Your task to perform on an android device: Open Google Chrome and open the bookmarks view Image 0: 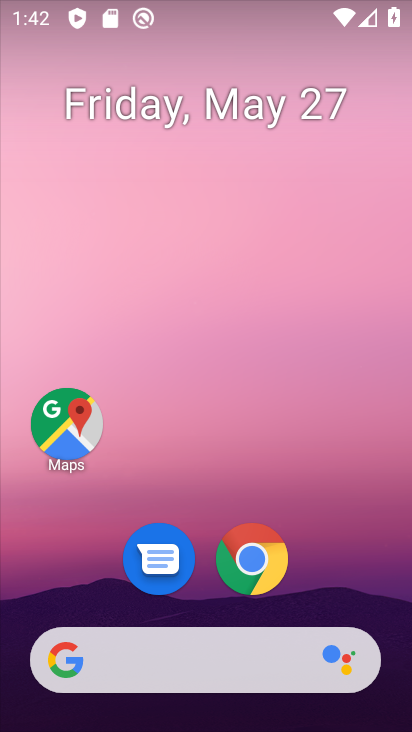
Step 0: click (250, 565)
Your task to perform on an android device: Open Google Chrome and open the bookmarks view Image 1: 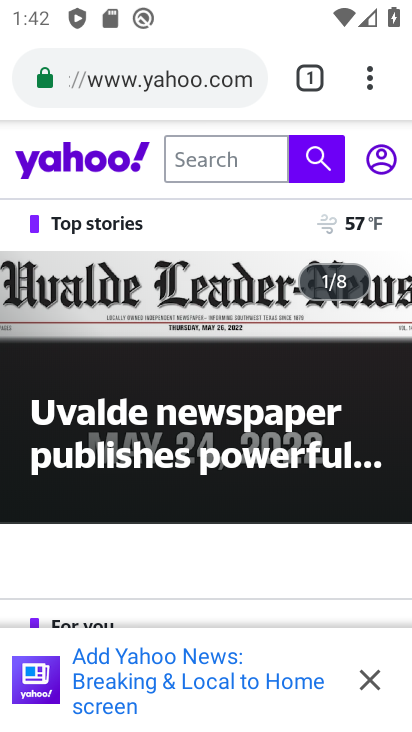
Step 1: task complete